Your task to perform on an android device: see creations saved in the google photos Image 0: 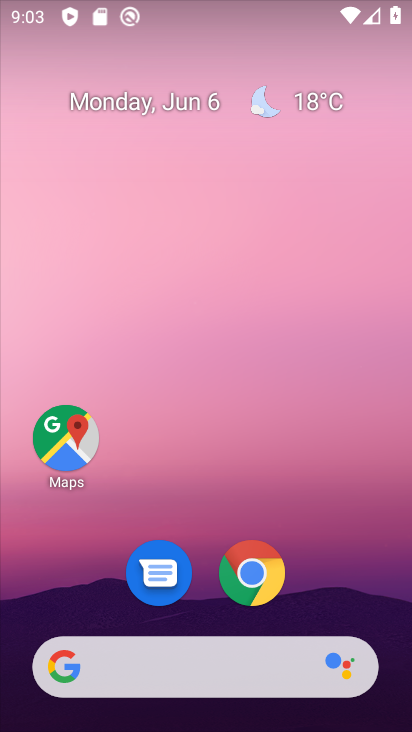
Step 0: drag from (218, 572) to (266, 144)
Your task to perform on an android device: see creations saved in the google photos Image 1: 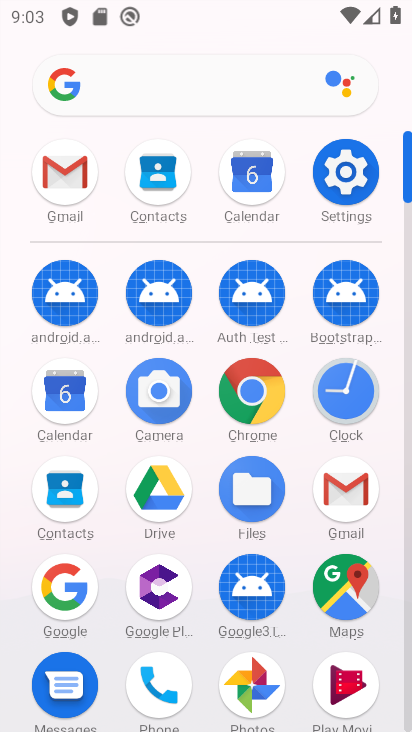
Step 1: click (253, 697)
Your task to perform on an android device: see creations saved in the google photos Image 2: 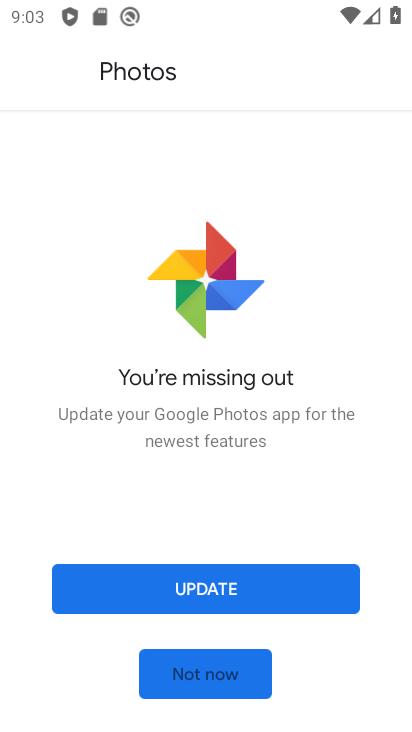
Step 2: drag from (218, 690) to (173, 690)
Your task to perform on an android device: see creations saved in the google photos Image 3: 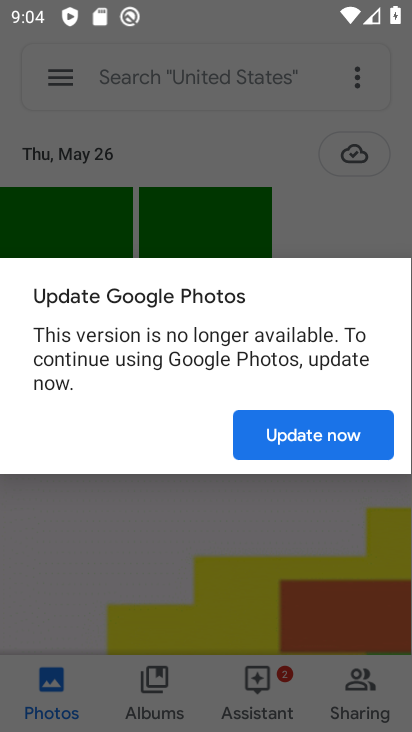
Step 3: click (295, 444)
Your task to perform on an android device: see creations saved in the google photos Image 4: 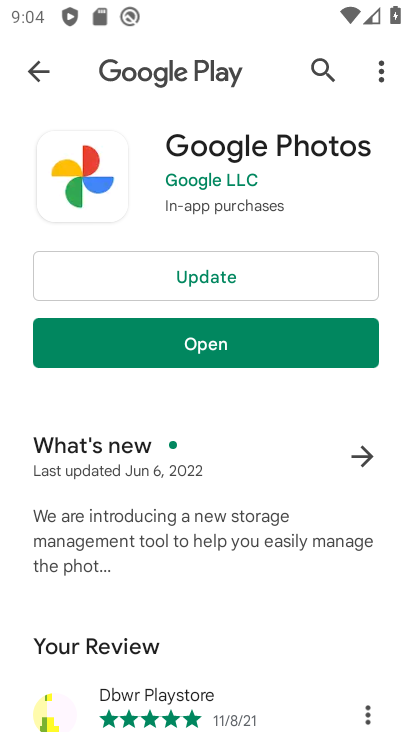
Step 4: click (191, 342)
Your task to perform on an android device: see creations saved in the google photos Image 5: 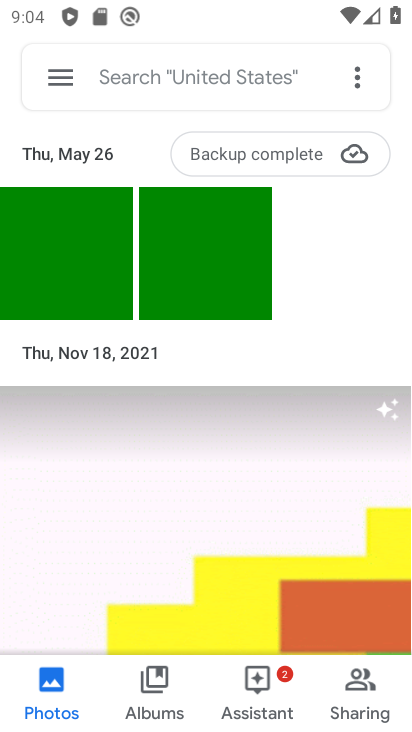
Step 5: click (65, 71)
Your task to perform on an android device: see creations saved in the google photos Image 6: 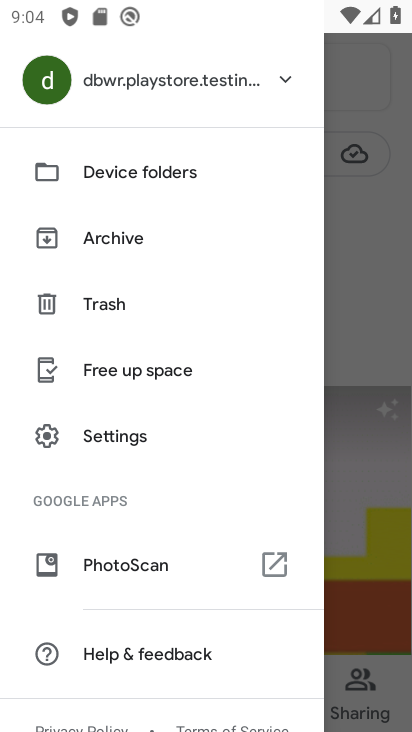
Step 6: click (124, 245)
Your task to perform on an android device: see creations saved in the google photos Image 7: 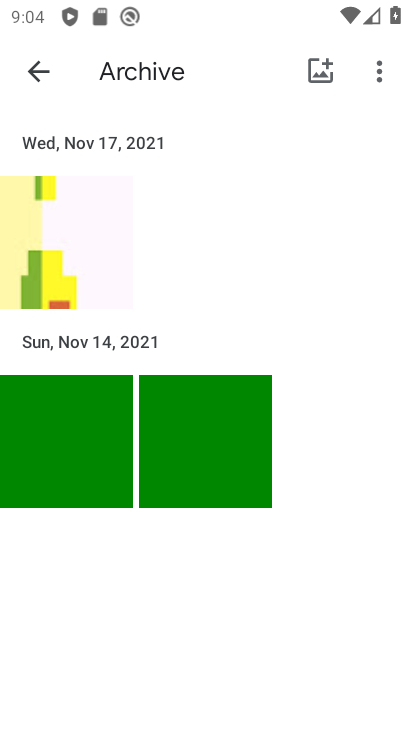
Step 7: task complete